Your task to perform on an android device: delete a single message in the gmail app Image 0: 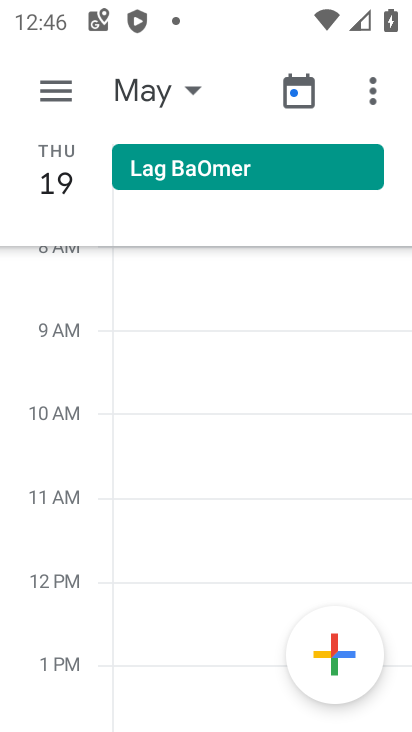
Step 0: press home button
Your task to perform on an android device: delete a single message in the gmail app Image 1: 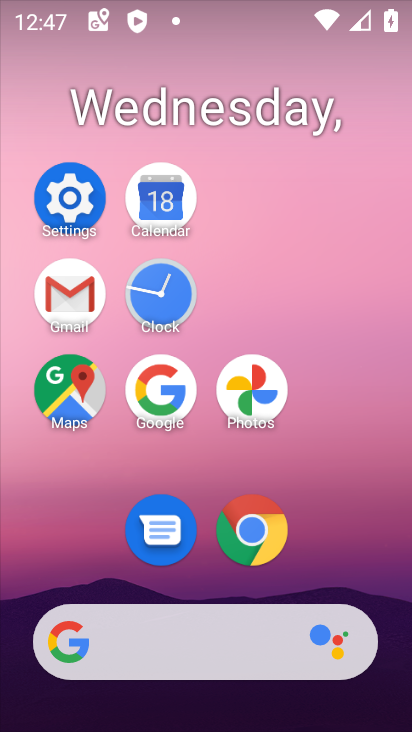
Step 1: click (79, 287)
Your task to perform on an android device: delete a single message in the gmail app Image 2: 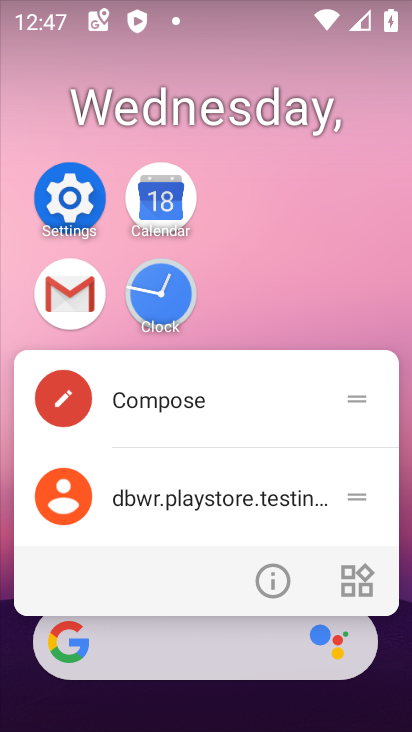
Step 2: click (79, 287)
Your task to perform on an android device: delete a single message in the gmail app Image 3: 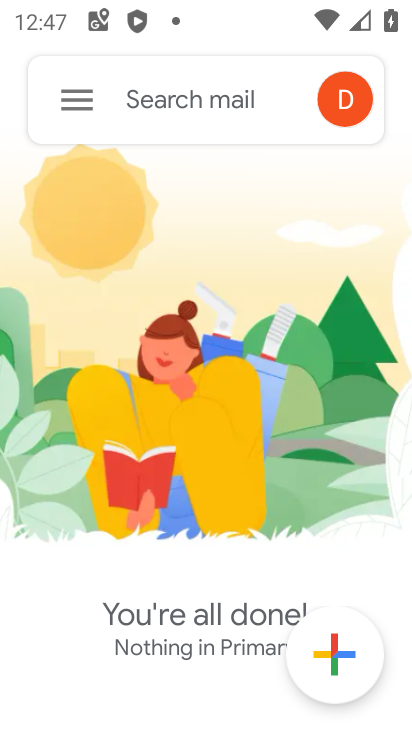
Step 3: click (78, 98)
Your task to perform on an android device: delete a single message in the gmail app Image 4: 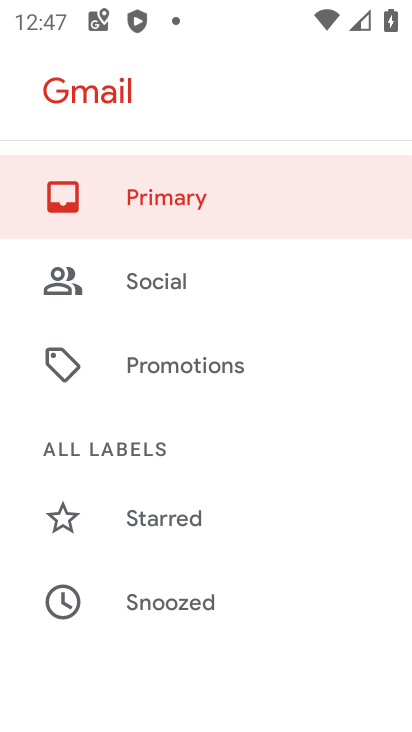
Step 4: drag from (257, 525) to (275, 255)
Your task to perform on an android device: delete a single message in the gmail app Image 5: 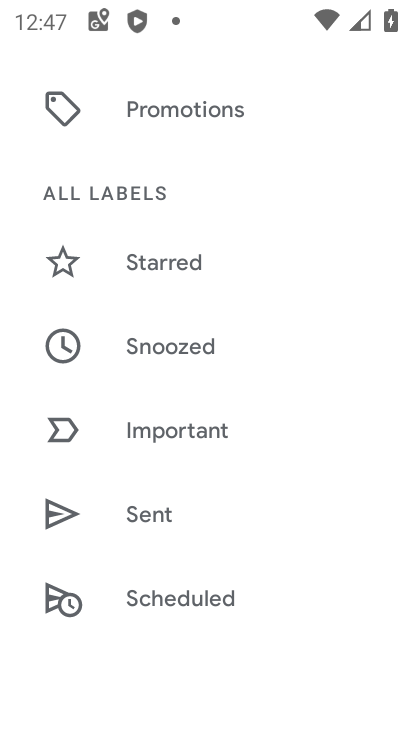
Step 5: drag from (268, 497) to (313, 179)
Your task to perform on an android device: delete a single message in the gmail app Image 6: 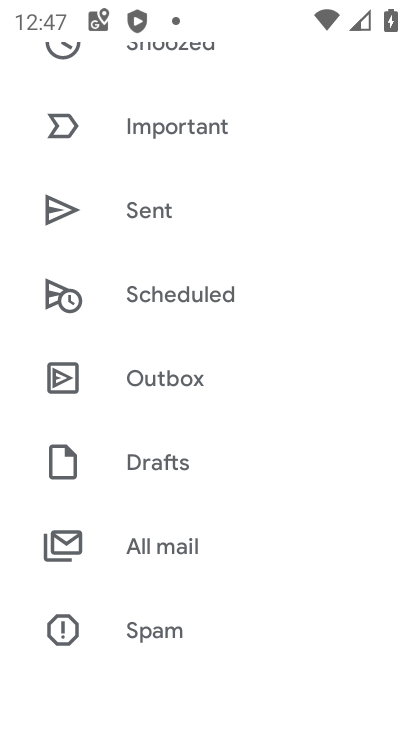
Step 6: drag from (257, 570) to (273, 265)
Your task to perform on an android device: delete a single message in the gmail app Image 7: 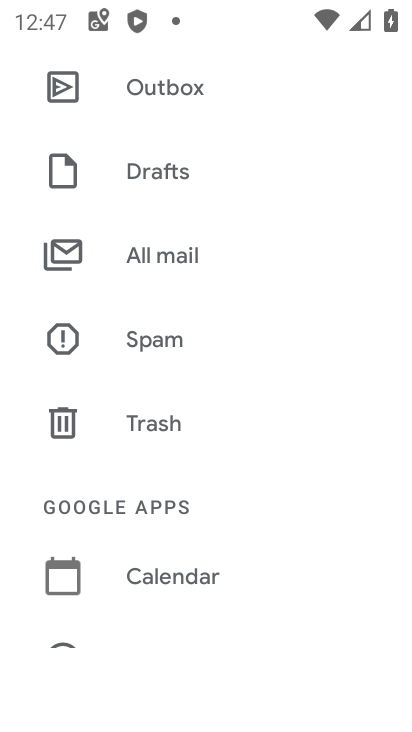
Step 7: click (210, 255)
Your task to perform on an android device: delete a single message in the gmail app Image 8: 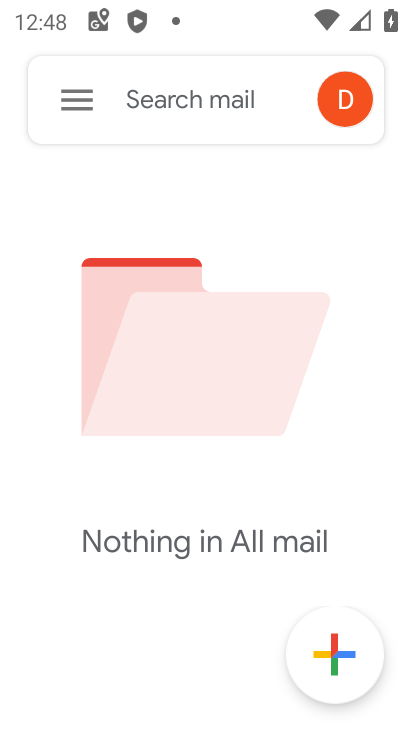
Step 8: task complete